Your task to perform on an android device: remove spam from my inbox in the gmail app Image 0: 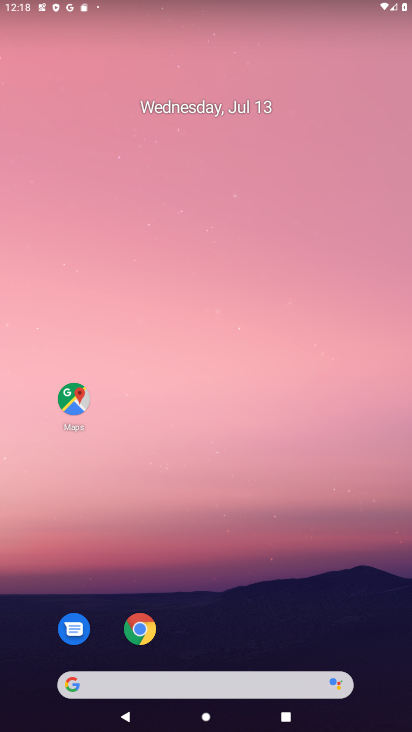
Step 0: drag from (259, 609) to (264, 269)
Your task to perform on an android device: remove spam from my inbox in the gmail app Image 1: 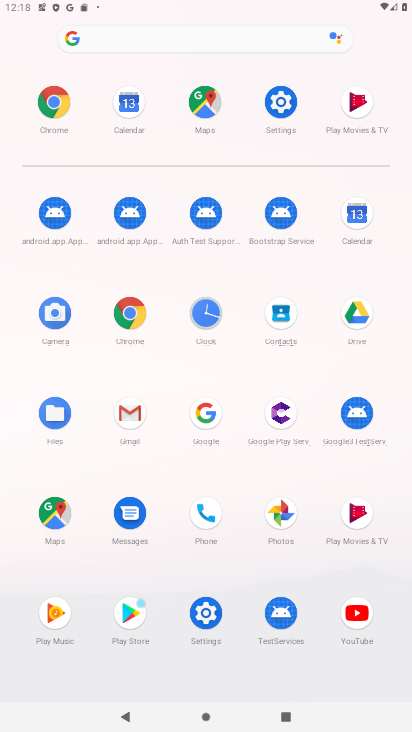
Step 1: click (195, 411)
Your task to perform on an android device: remove spam from my inbox in the gmail app Image 2: 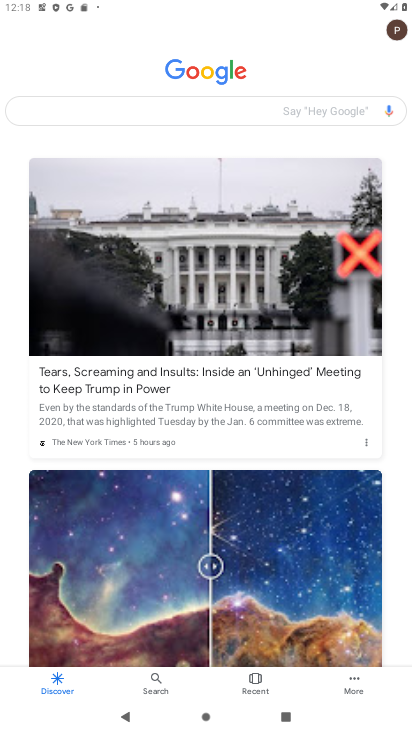
Step 2: press home button
Your task to perform on an android device: remove spam from my inbox in the gmail app Image 3: 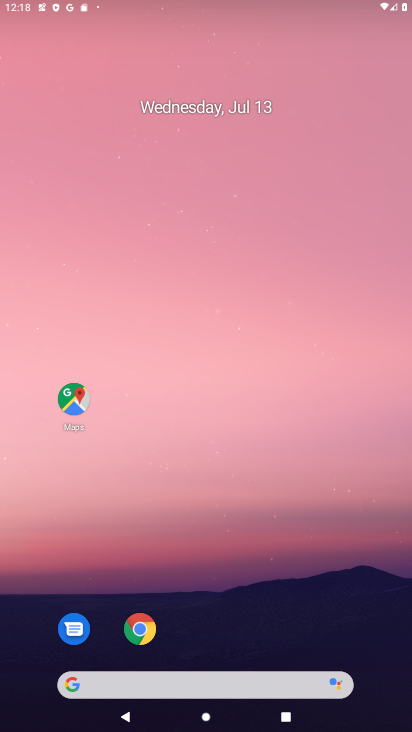
Step 3: drag from (290, 637) to (302, 258)
Your task to perform on an android device: remove spam from my inbox in the gmail app Image 4: 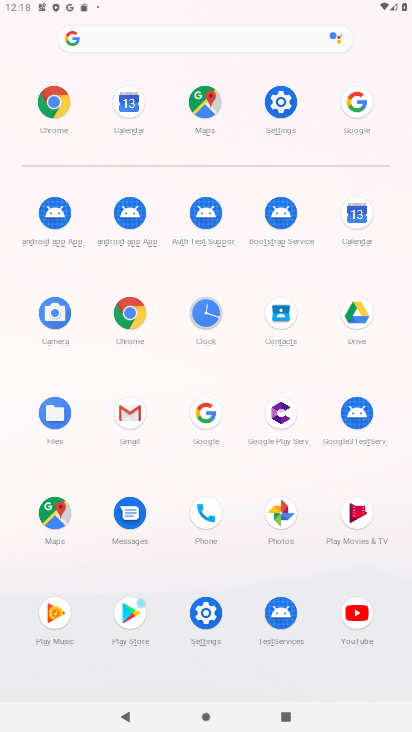
Step 4: click (132, 404)
Your task to perform on an android device: remove spam from my inbox in the gmail app Image 5: 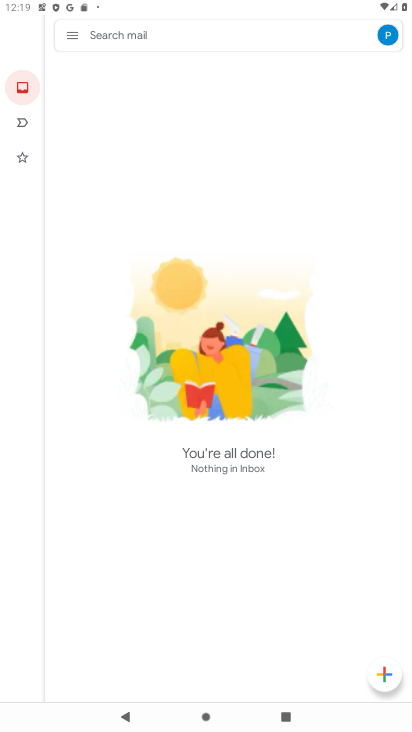
Step 5: click (69, 33)
Your task to perform on an android device: remove spam from my inbox in the gmail app Image 6: 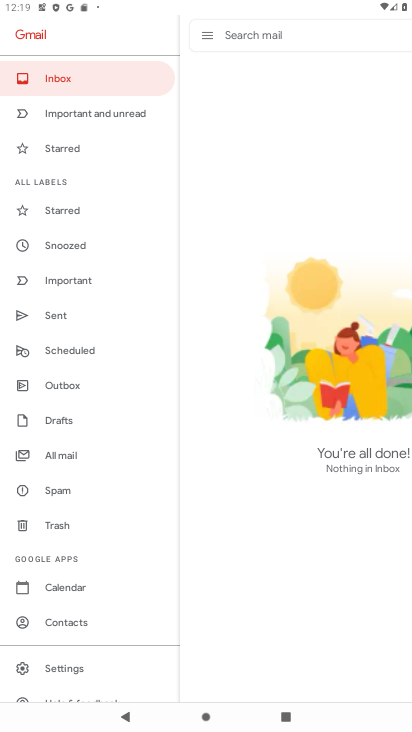
Step 6: click (60, 492)
Your task to perform on an android device: remove spam from my inbox in the gmail app Image 7: 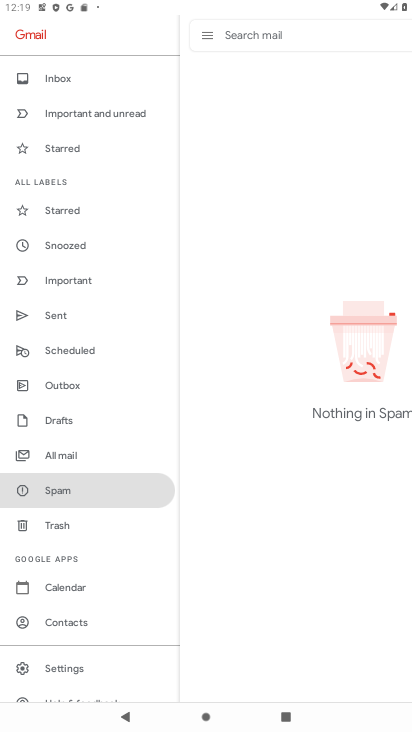
Step 7: task complete